Your task to perform on an android device: Go to Amazon Image 0: 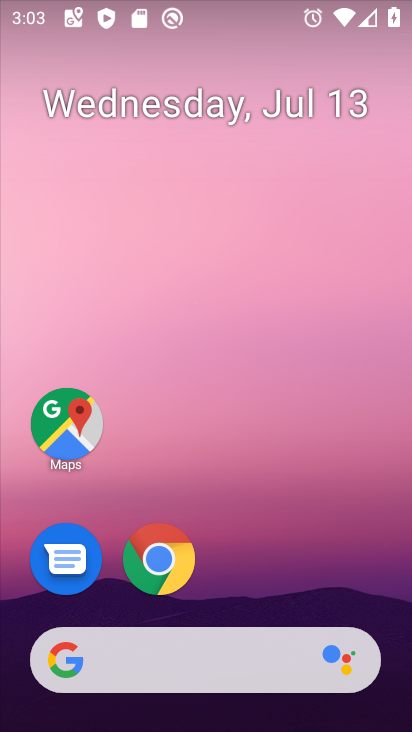
Step 0: drag from (329, 580) to (337, 137)
Your task to perform on an android device: Go to Amazon Image 1: 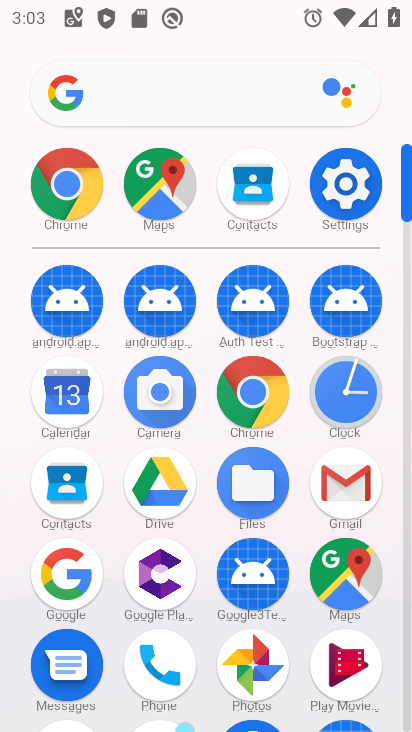
Step 1: click (256, 390)
Your task to perform on an android device: Go to Amazon Image 2: 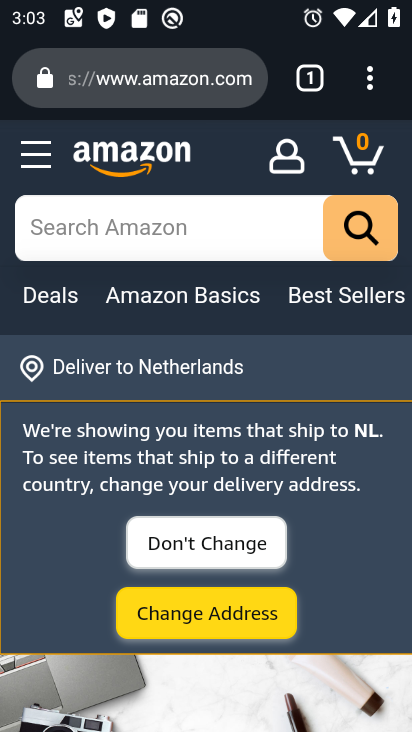
Step 2: task complete